Your task to perform on an android device: Open Amazon Image 0: 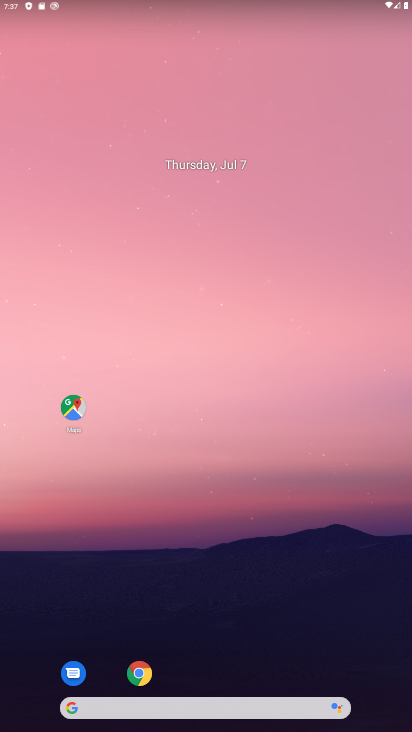
Step 0: click (139, 675)
Your task to perform on an android device: Open Amazon Image 1: 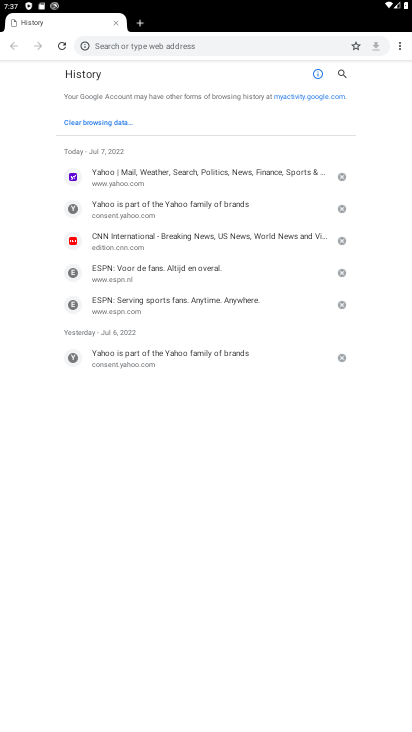
Step 1: click (217, 49)
Your task to perform on an android device: Open Amazon Image 2: 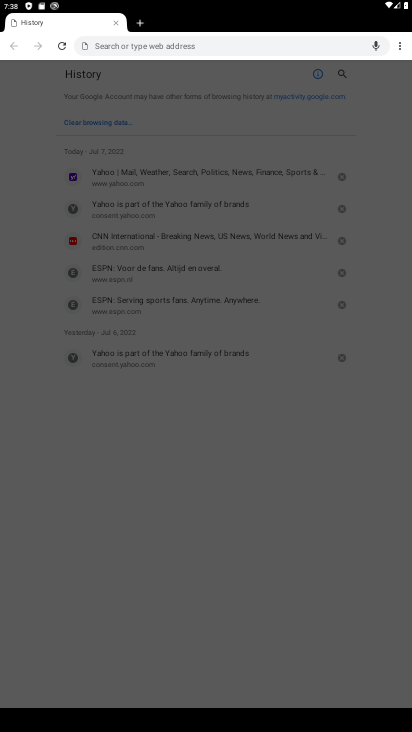
Step 2: type "Amazon"
Your task to perform on an android device: Open Amazon Image 3: 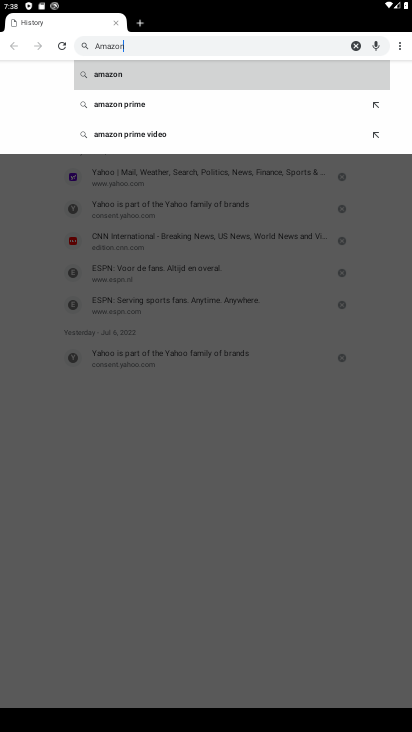
Step 3: click (93, 75)
Your task to perform on an android device: Open Amazon Image 4: 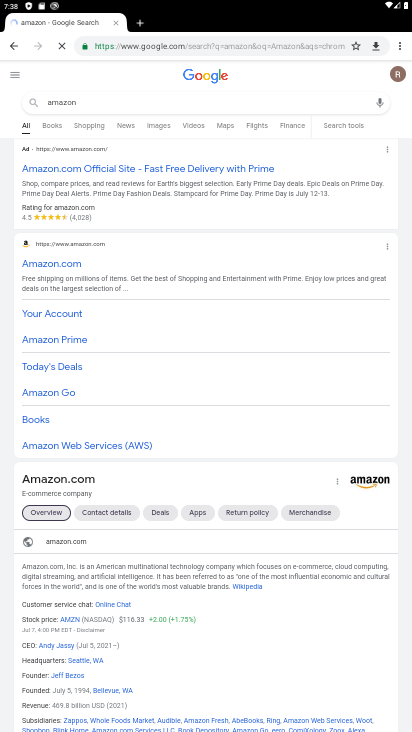
Step 4: click (112, 170)
Your task to perform on an android device: Open Amazon Image 5: 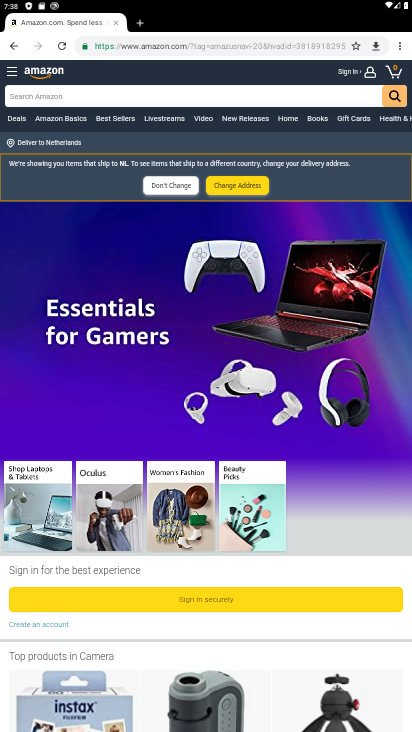
Step 5: task complete